Your task to perform on an android device: Search for sushi restaurants on Maps Image 0: 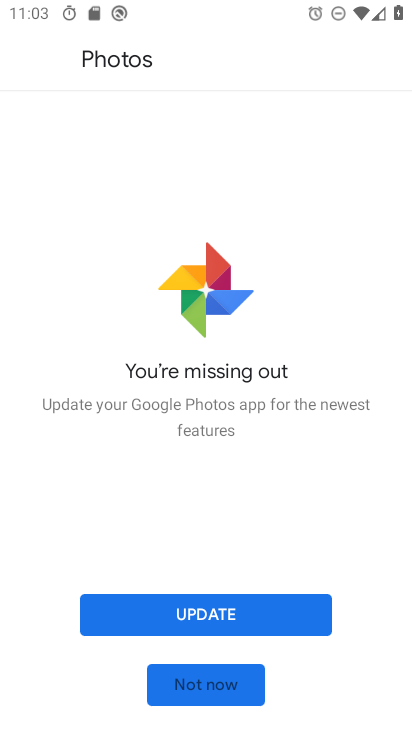
Step 0: press home button
Your task to perform on an android device: Search for sushi restaurants on Maps Image 1: 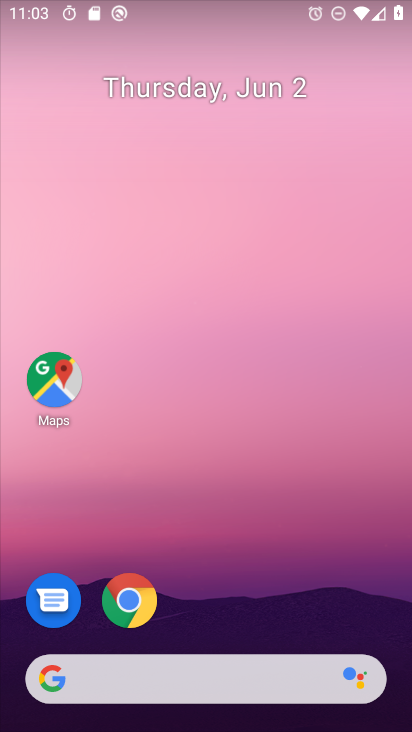
Step 1: click (54, 386)
Your task to perform on an android device: Search for sushi restaurants on Maps Image 2: 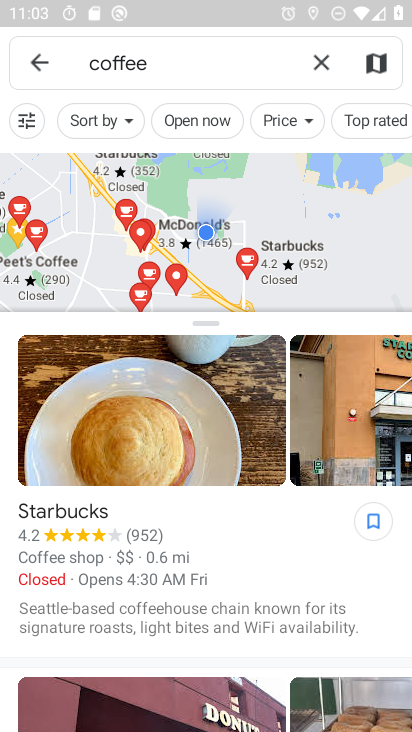
Step 2: click (323, 59)
Your task to perform on an android device: Search for sushi restaurants on Maps Image 3: 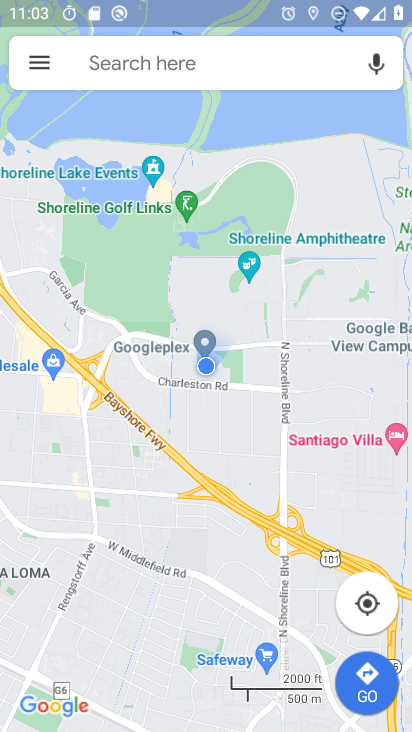
Step 3: click (193, 61)
Your task to perform on an android device: Search for sushi restaurants on Maps Image 4: 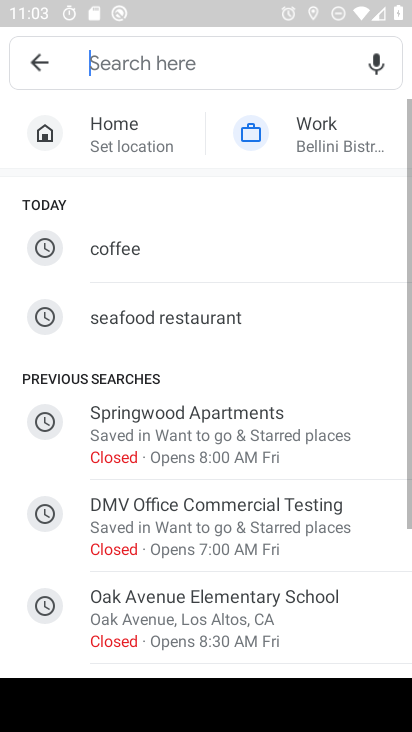
Step 4: drag from (221, 455) to (232, 111)
Your task to perform on an android device: Search for sushi restaurants on Maps Image 5: 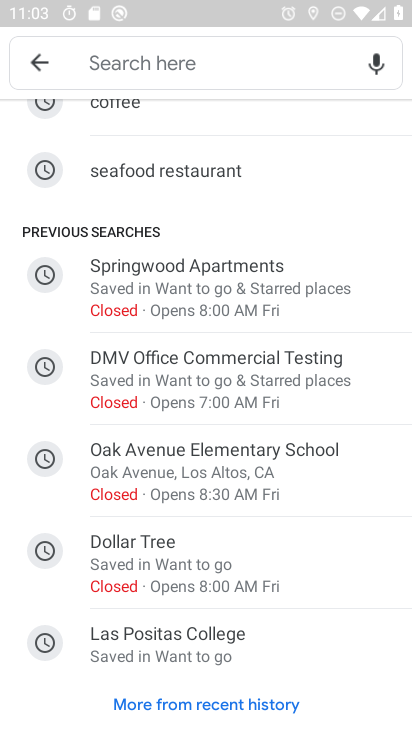
Step 5: click (181, 63)
Your task to perform on an android device: Search for sushi restaurants on Maps Image 6: 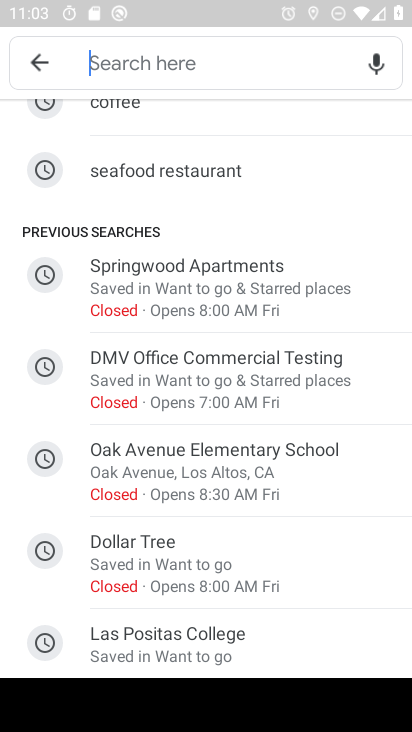
Step 6: type "sushi restaurent "
Your task to perform on an android device: Search for sushi restaurants on Maps Image 7: 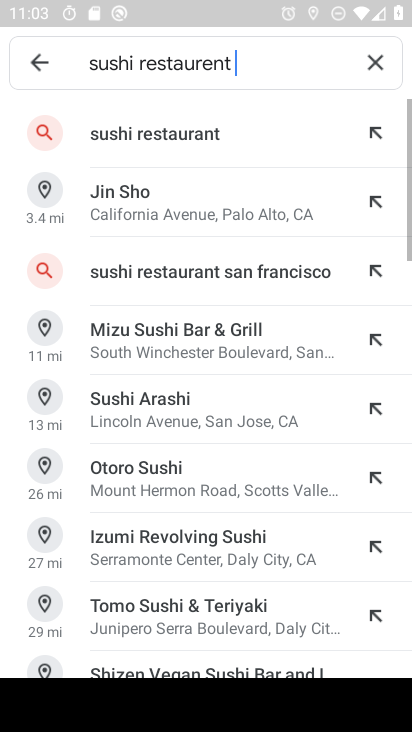
Step 7: click (202, 132)
Your task to perform on an android device: Search for sushi restaurants on Maps Image 8: 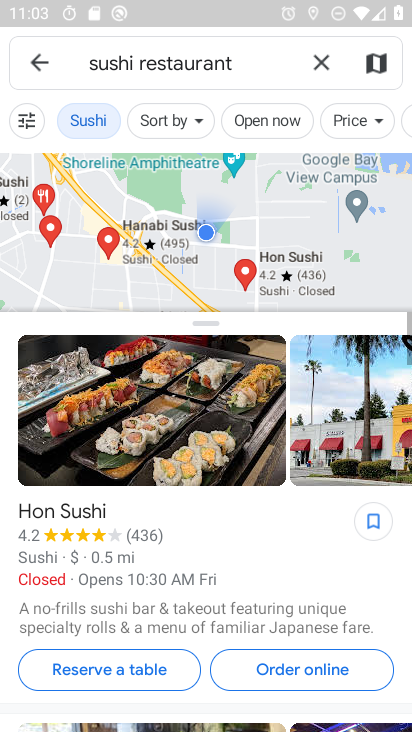
Step 8: task complete